Your task to perform on an android device: Search for "razer deathadder" on newegg.com, select the first entry, and add it to the cart. Image 0: 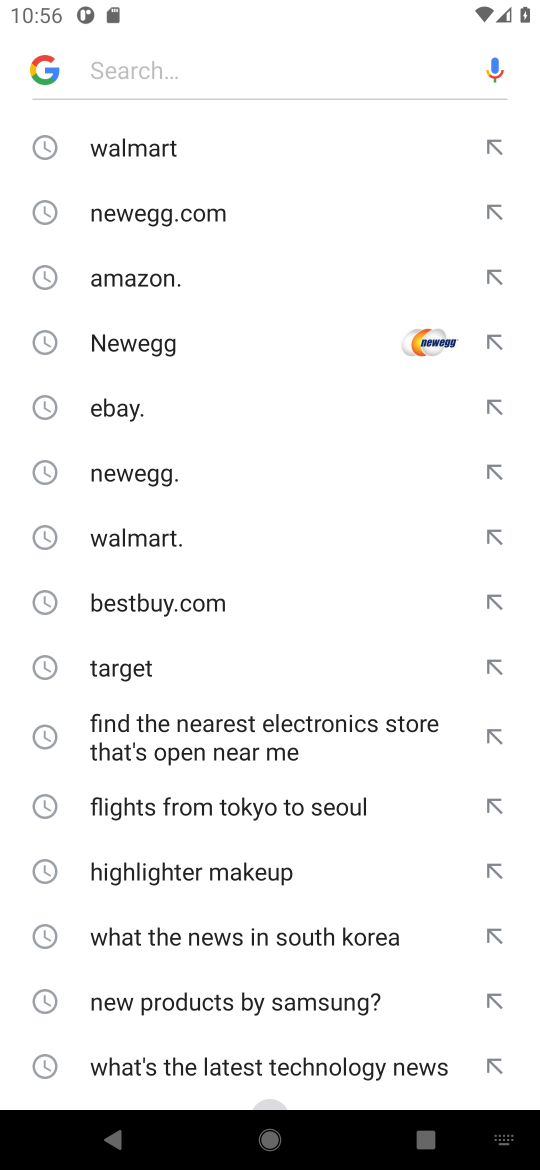
Step 0: click (121, 353)
Your task to perform on an android device: Search for "razer deathadder" on newegg.com, select the first entry, and add it to the cart. Image 1: 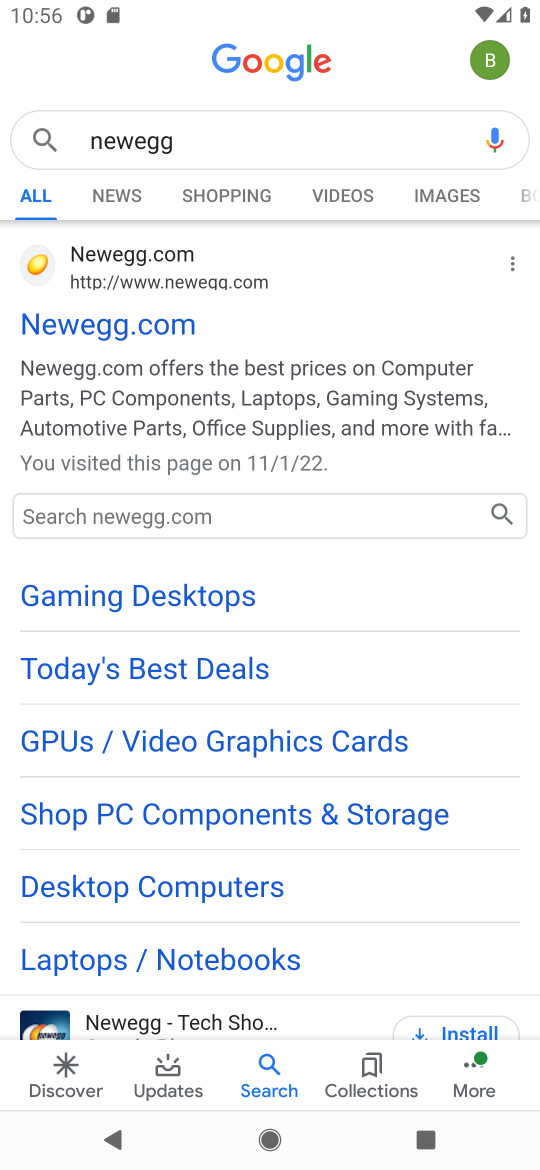
Step 1: click (132, 517)
Your task to perform on an android device: Search for "razer deathadder" on newegg.com, select the first entry, and add it to the cart. Image 2: 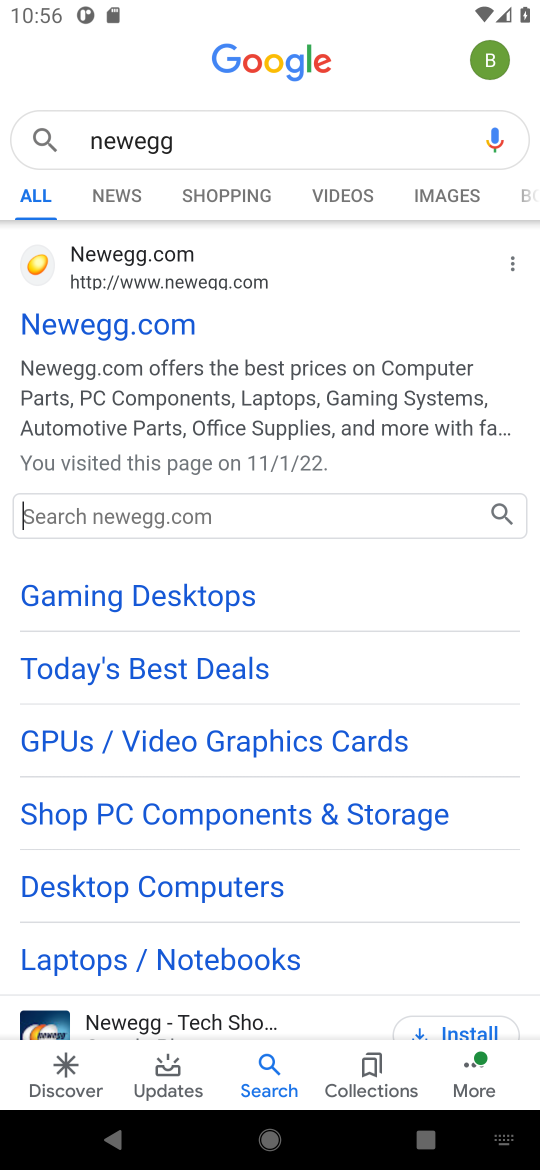
Step 2: type "razer deathadder"
Your task to perform on an android device: Search for "razer deathadder" on newegg.com, select the first entry, and add it to the cart. Image 3: 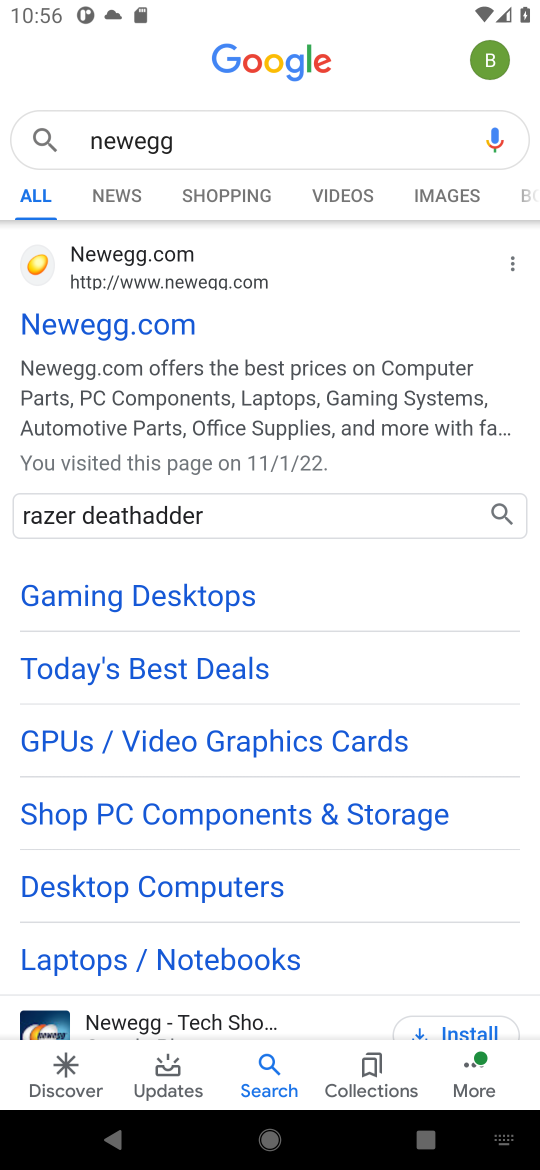
Step 3: click (499, 510)
Your task to perform on an android device: Search for "razer deathadder" on newegg.com, select the first entry, and add it to the cart. Image 4: 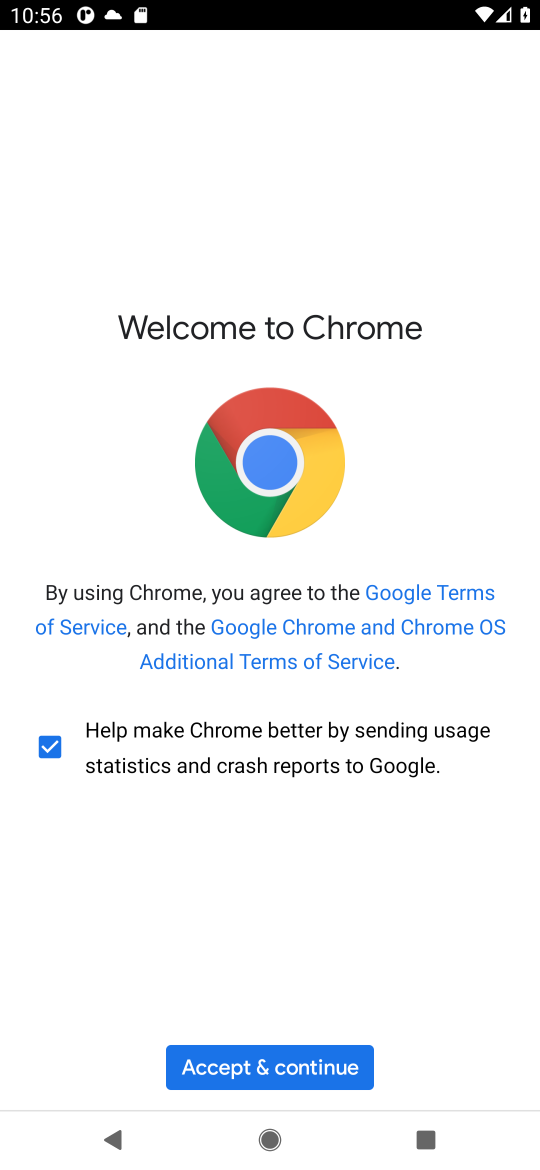
Step 4: click (278, 1071)
Your task to perform on an android device: Search for "razer deathadder" on newegg.com, select the first entry, and add it to the cart. Image 5: 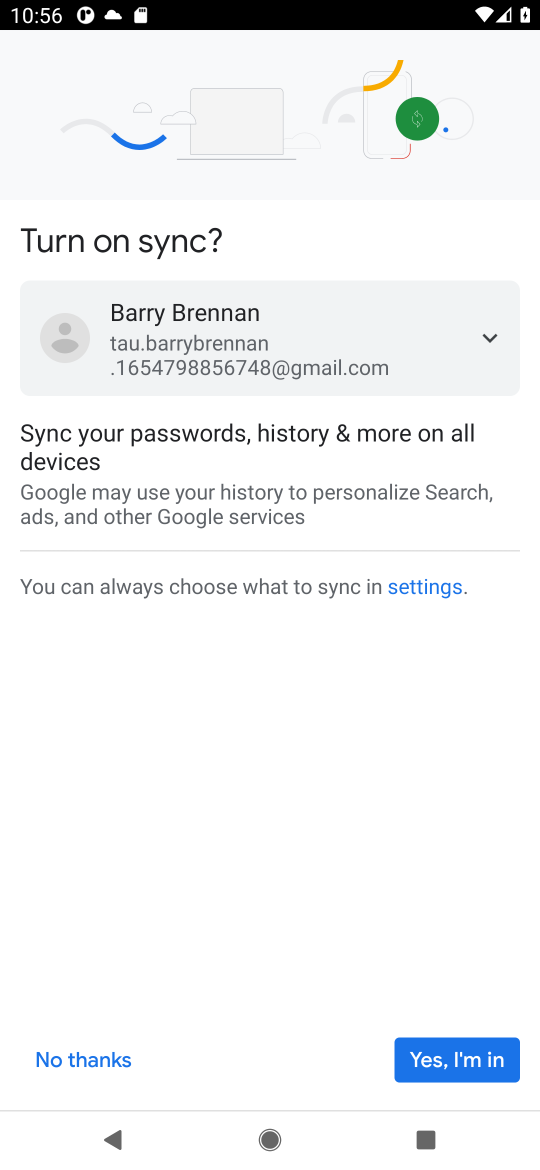
Step 5: click (436, 1056)
Your task to perform on an android device: Search for "razer deathadder" on newegg.com, select the first entry, and add it to the cart. Image 6: 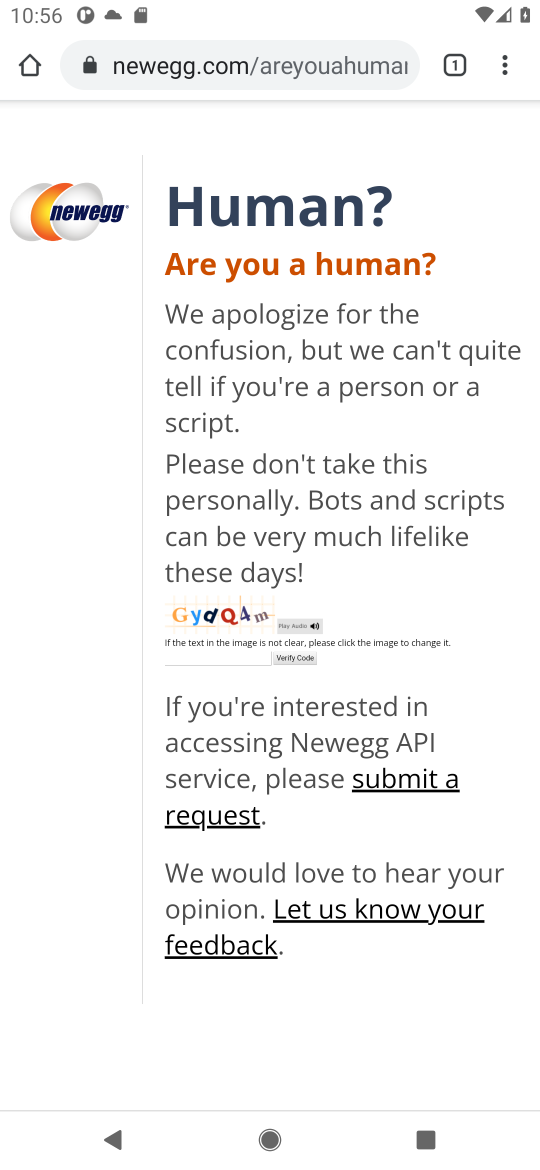
Step 6: click (225, 671)
Your task to perform on an android device: Search for "razer deathadder" on newegg.com, select the first entry, and add it to the cart. Image 7: 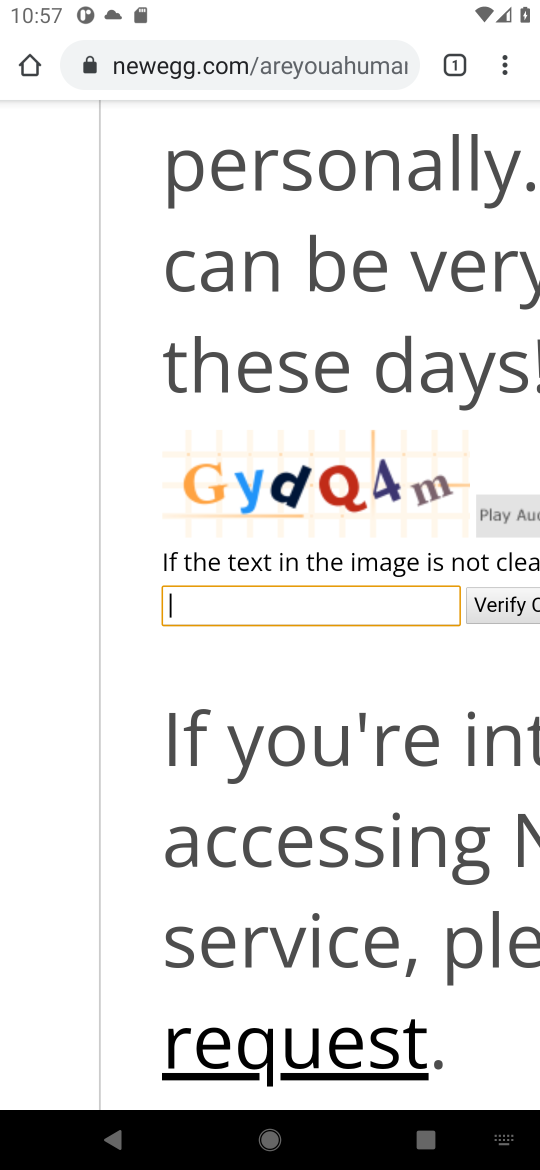
Step 7: type "GydQ4m"
Your task to perform on an android device: Search for "razer deathadder" on newegg.com, select the first entry, and add it to the cart. Image 8: 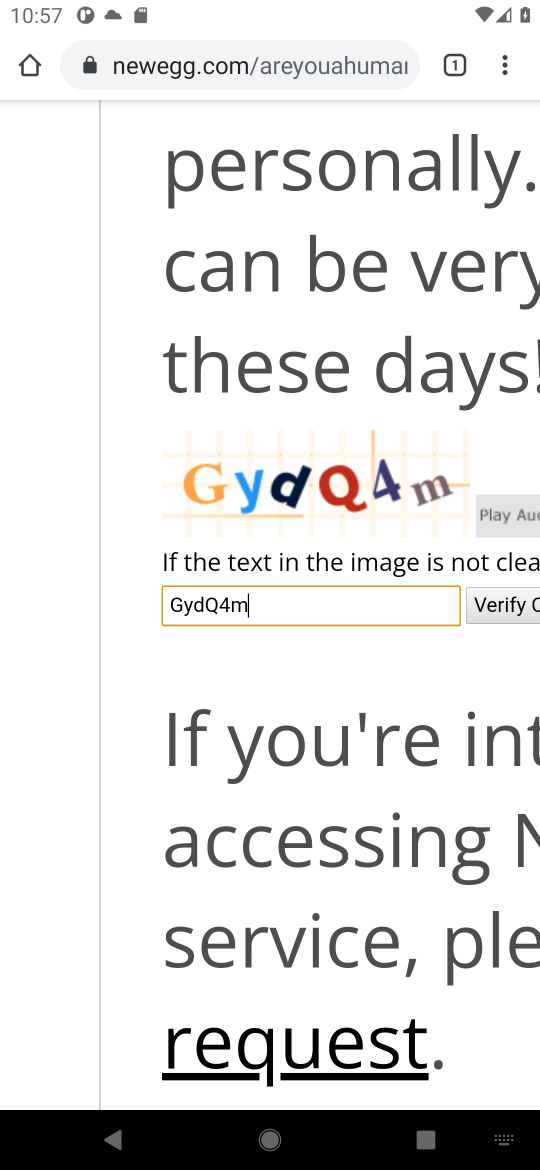
Step 8: click (517, 612)
Your task to perform on an android device: Search for "razer deathadder" on newegg.com, select the first entry, and add it to the cart. Image 9: 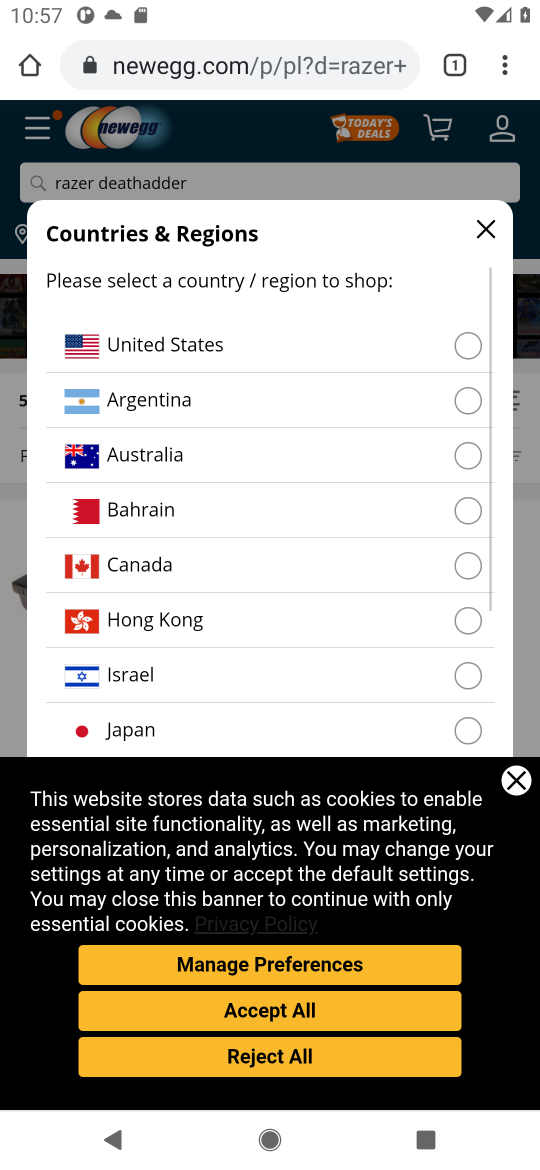
Step 9: click (523, 778)
Your task to perform on an android device: Search for "razer deathadder" on newegg.com, select the first entry, and add it to the cart. Image 10: 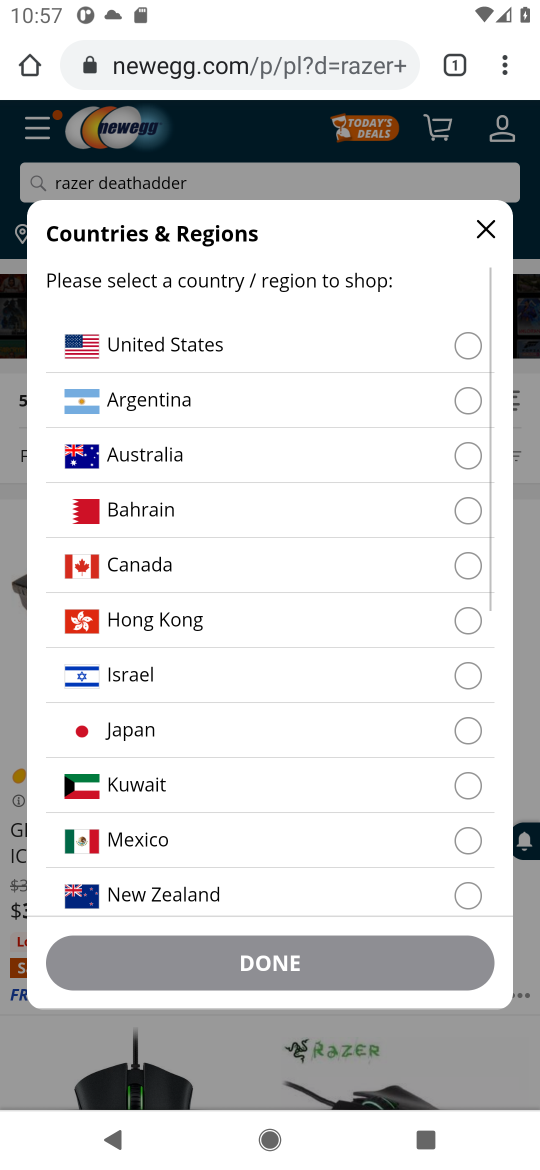
Step 10: click (462, 349)
Your task to perform on an android device: Search for "razer deathadder" on newegg.com, select the first entry, and add it to the cart. Image 11: 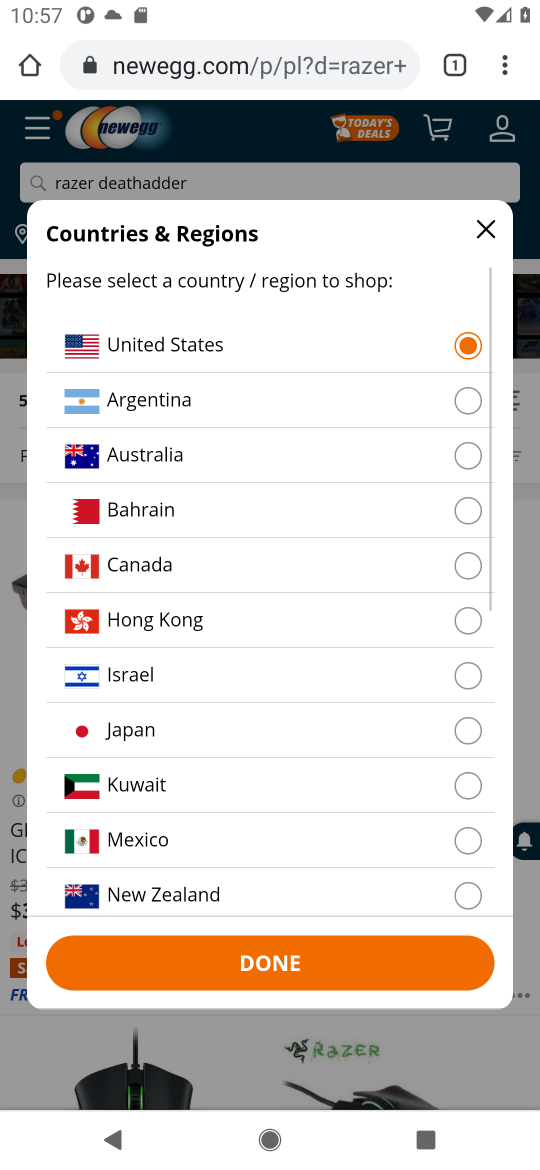
Step 11: click (256, 959)
Your task to perform on an android device: Search for "razer deathadder" on newegg.com, select the first entry, and add it to the cart. Image 12: 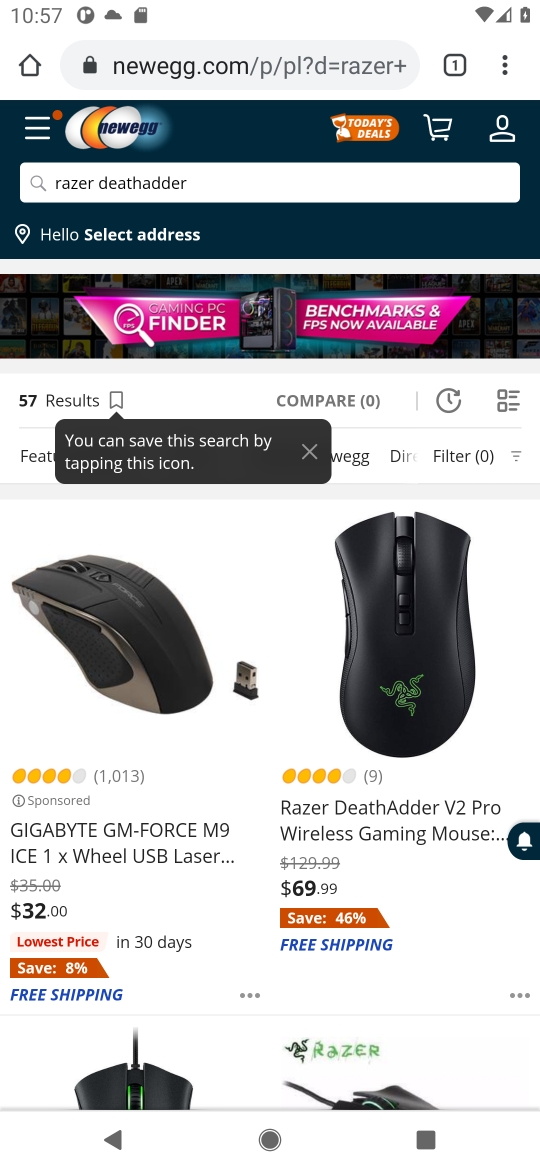
Step 12: click (374, 821)
Your task to perform on an android device: Search for "razer deathadder" on newegg.com, select the first entry, and add it to the cart. Image 13: 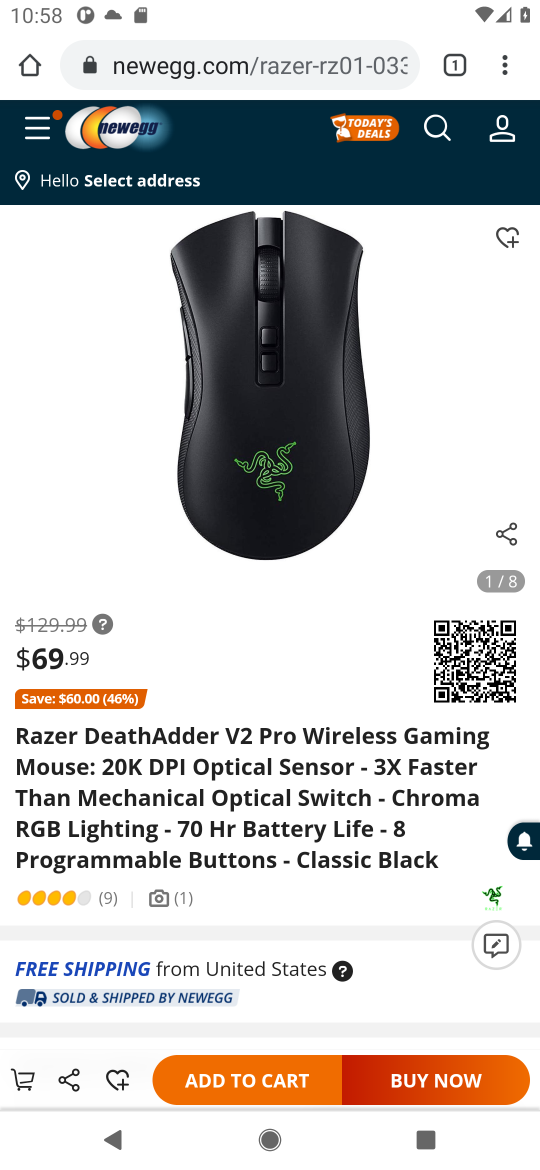
Step 13: click (255, 1090)
Your task to perform on an android device: Search for "razer deathadder" on newegg.com, select the first entry, and add it to the cart. Image 14: 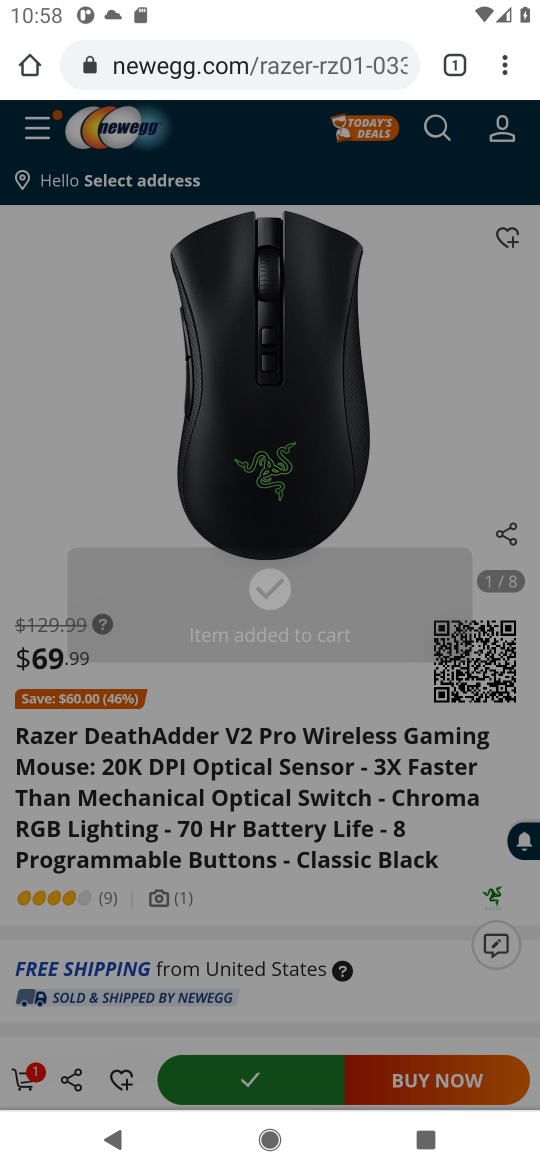
Step 14: task complete